Your task to perform on an android device: install app "Airtel Thanks" Image 0: 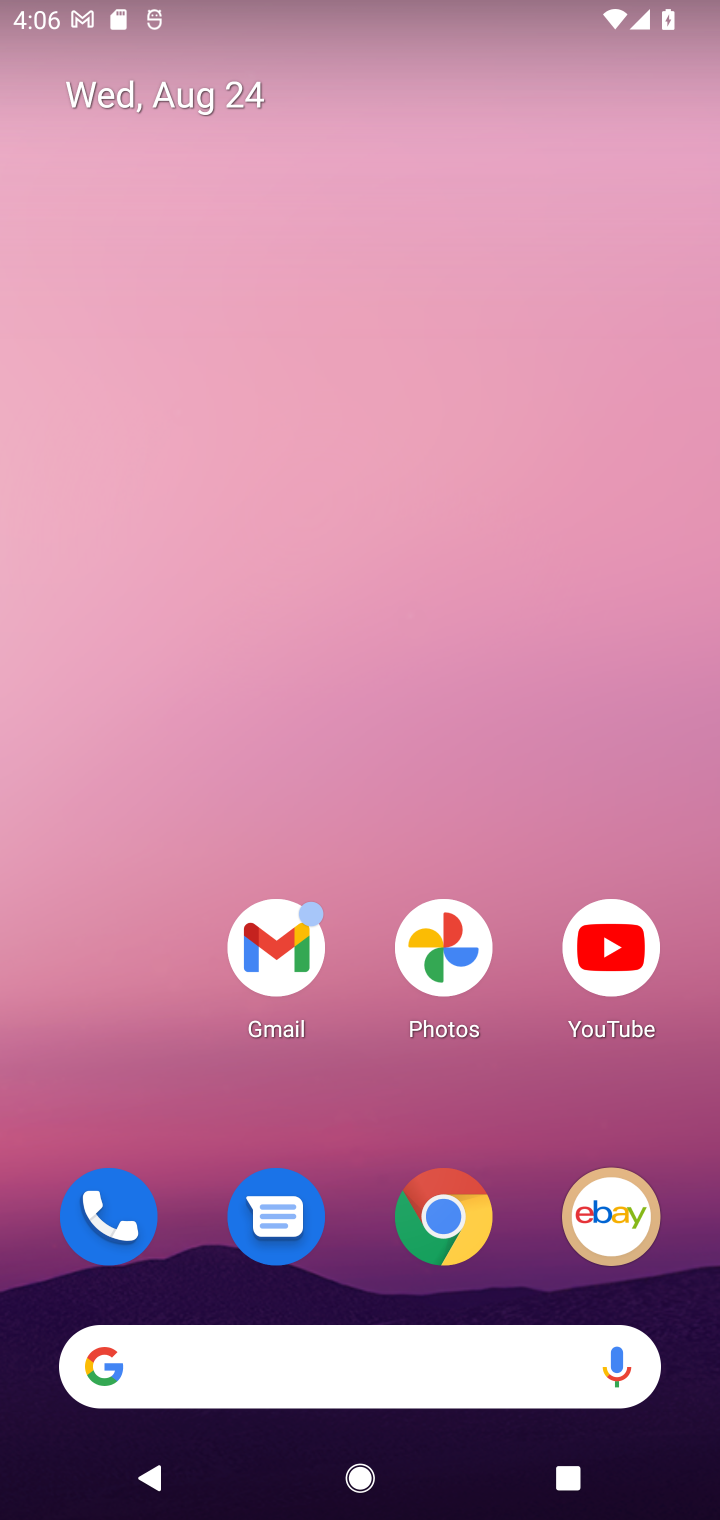
Step 0: drag from (359, 1100) to (411, 312)
Your task to perform on an android device: install app "Airtel Thanks" Image 1: 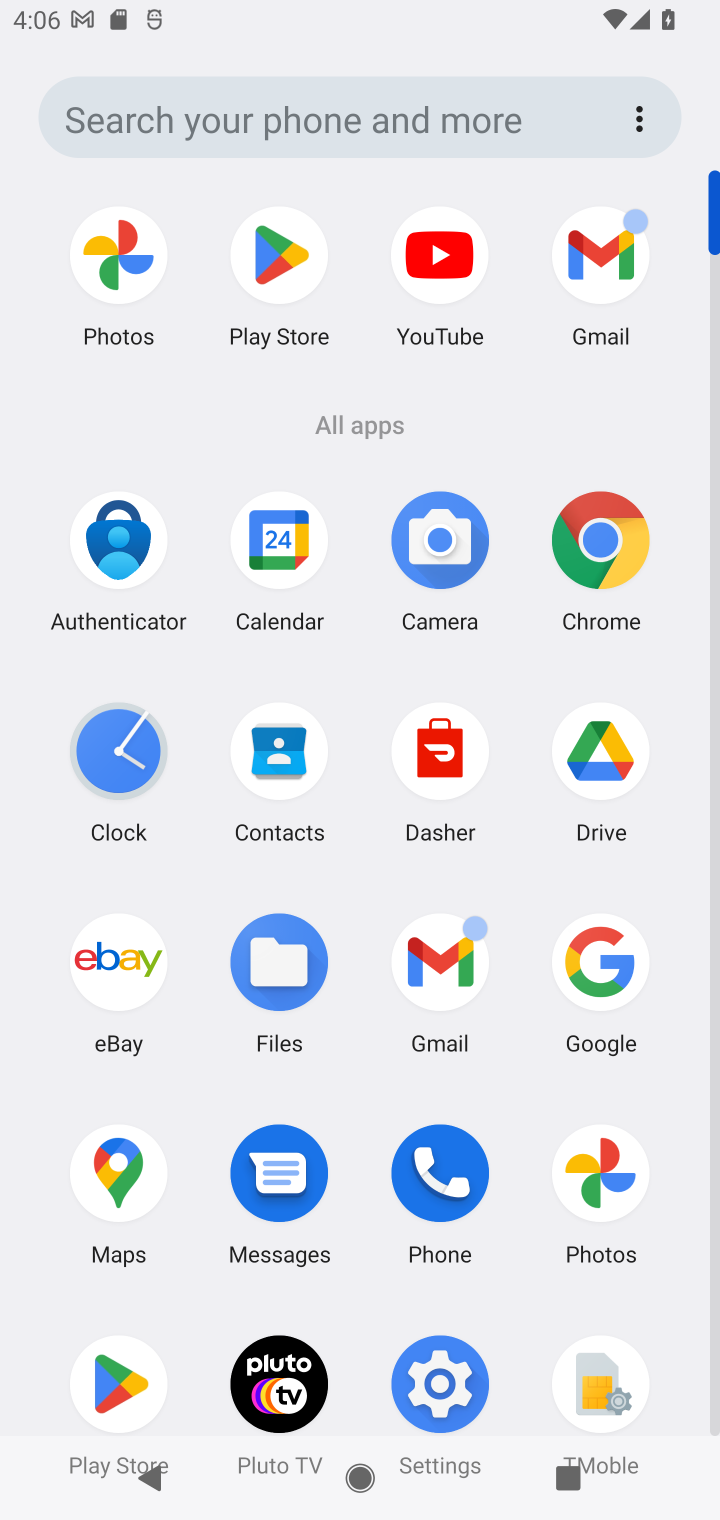
Step 1: click (299, 271)
Your task to perform on an android device: install app "Airtel Thanks" Image 2: 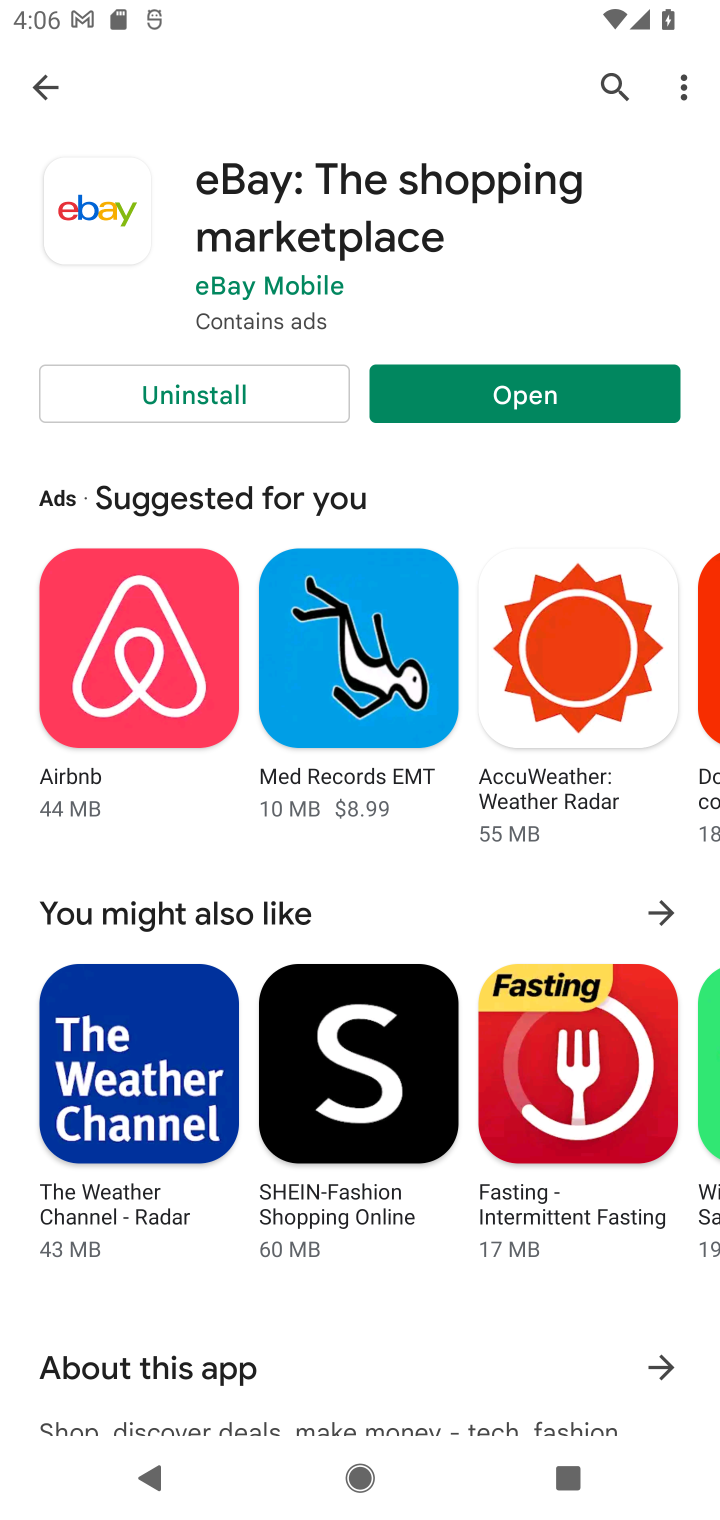
Step 2: click (608, 92)
Your task to perform on an android device: install app "Airtel Thanks" Image 3: 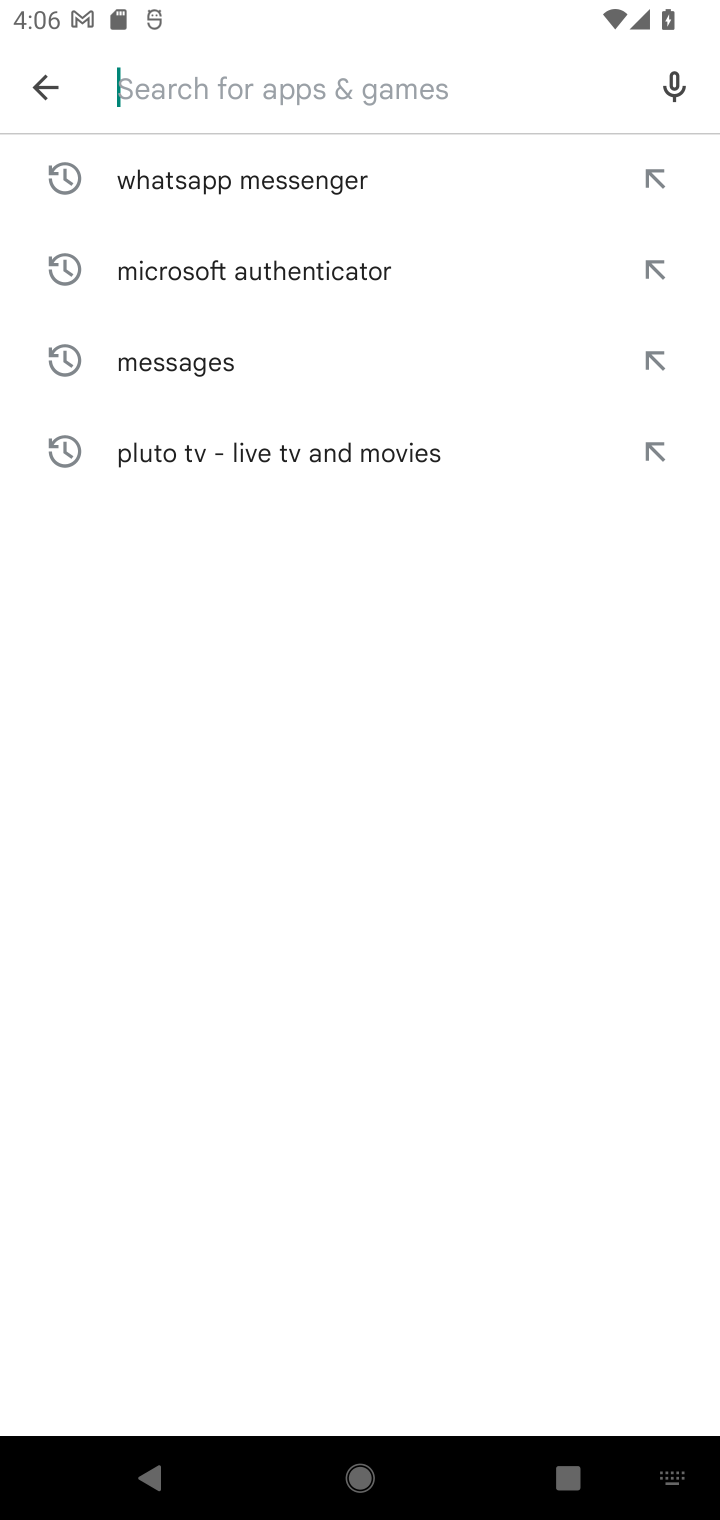
Step 3: type "Airtel Thanks"
Your task to perform on an android device: install app "Airtel Thanks" Image 4: 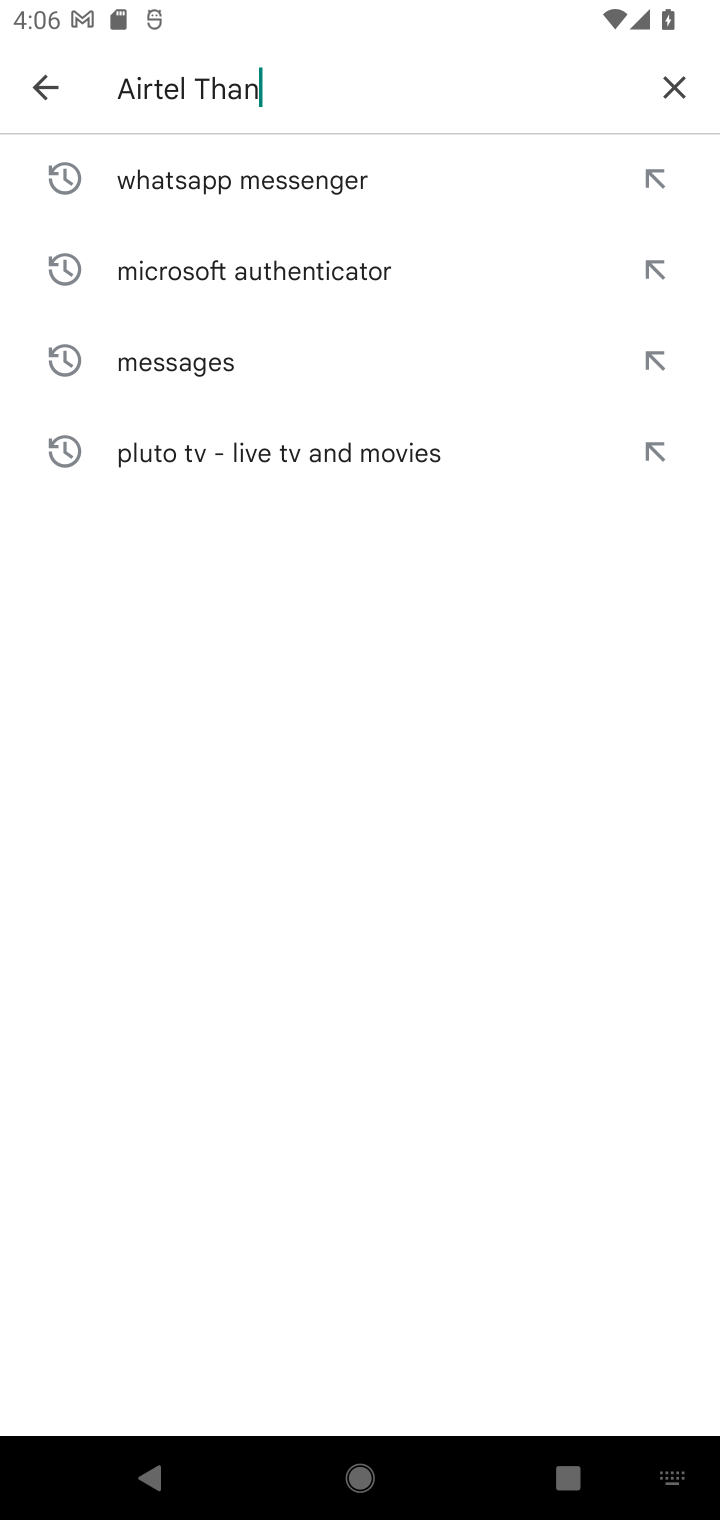
Step 4: type ""
Your task to perform on an android device: install app "Airtel Thanks" Image 5: 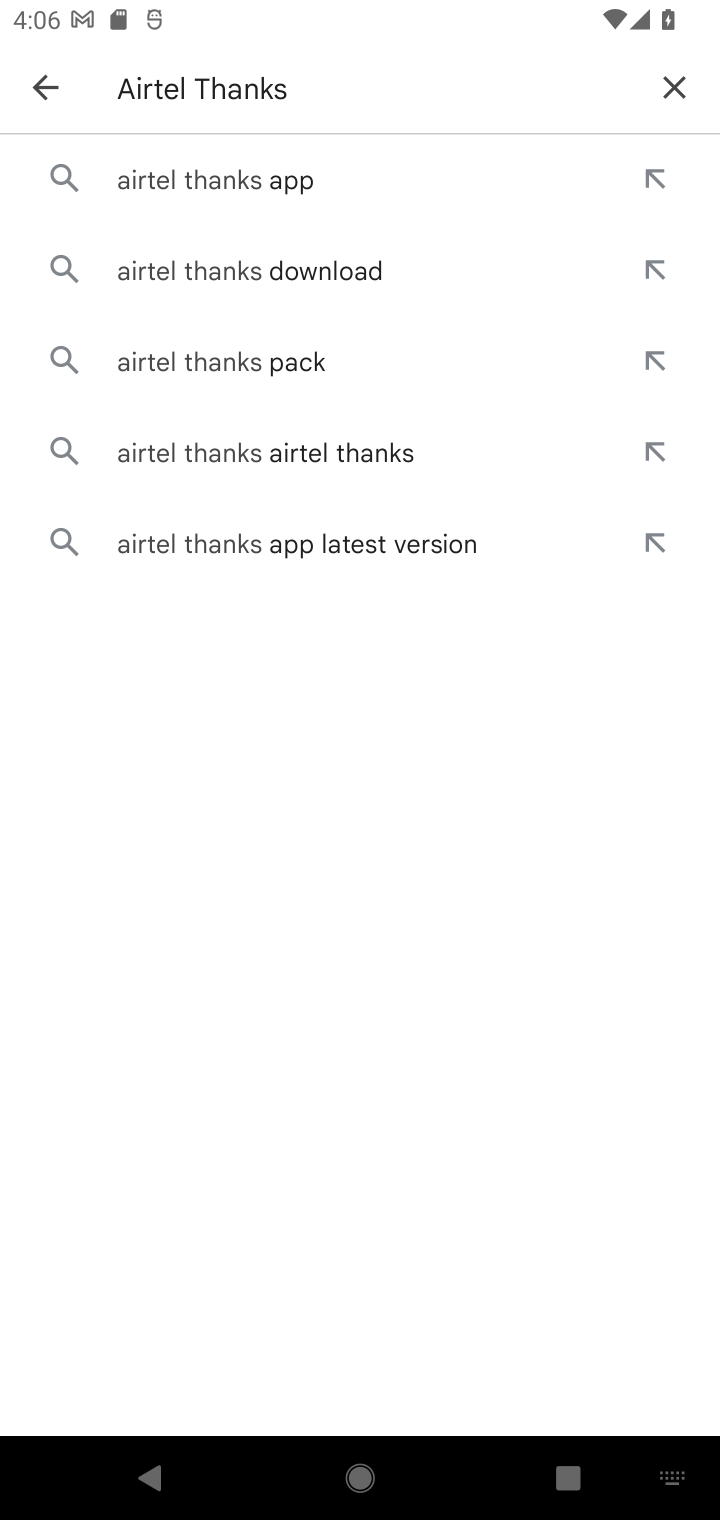
Step 5: click (378, 165)
Your task to perform on an android device: install app "Airtel Thanks" Image 6: 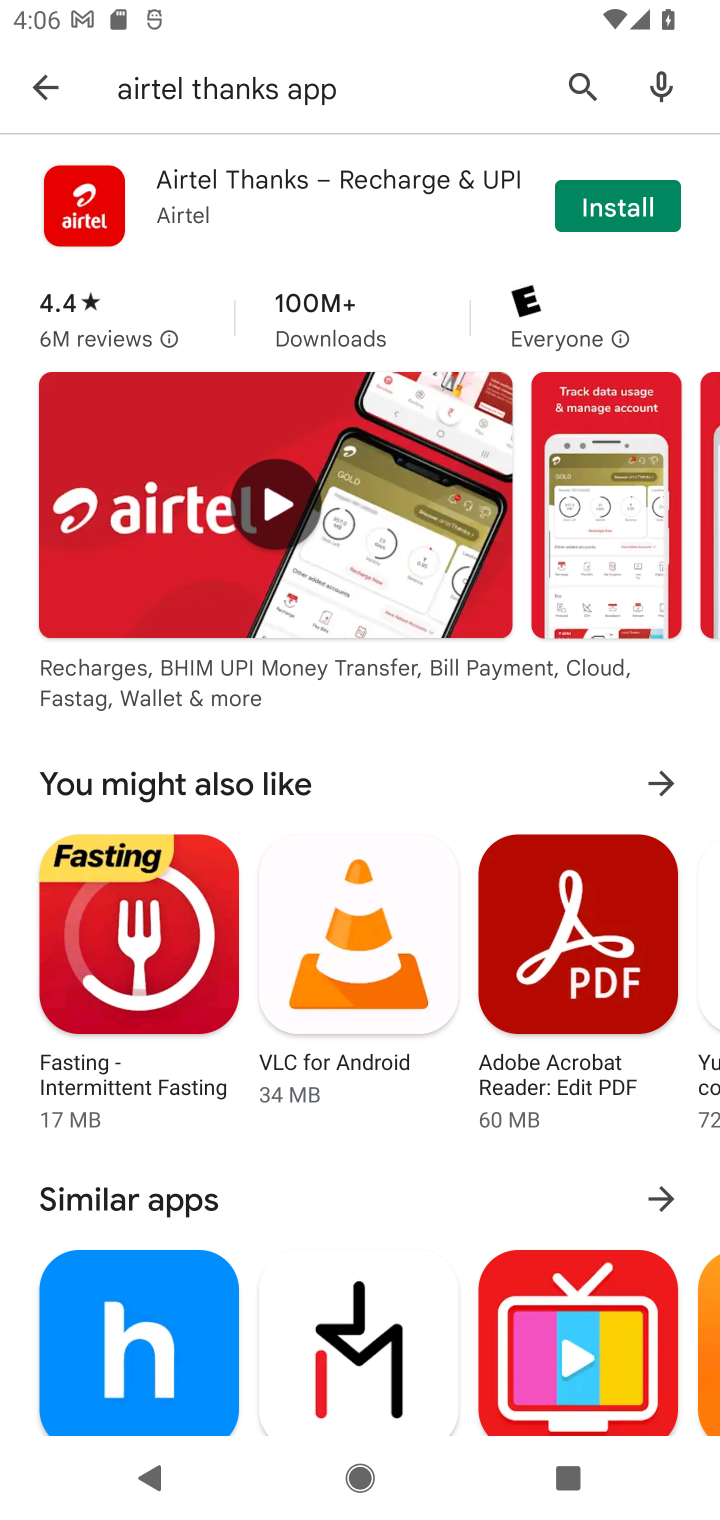
Step 6: click (592, 212)
Your task to perform on an android device: install app "Airtel Thanks" Image 7: 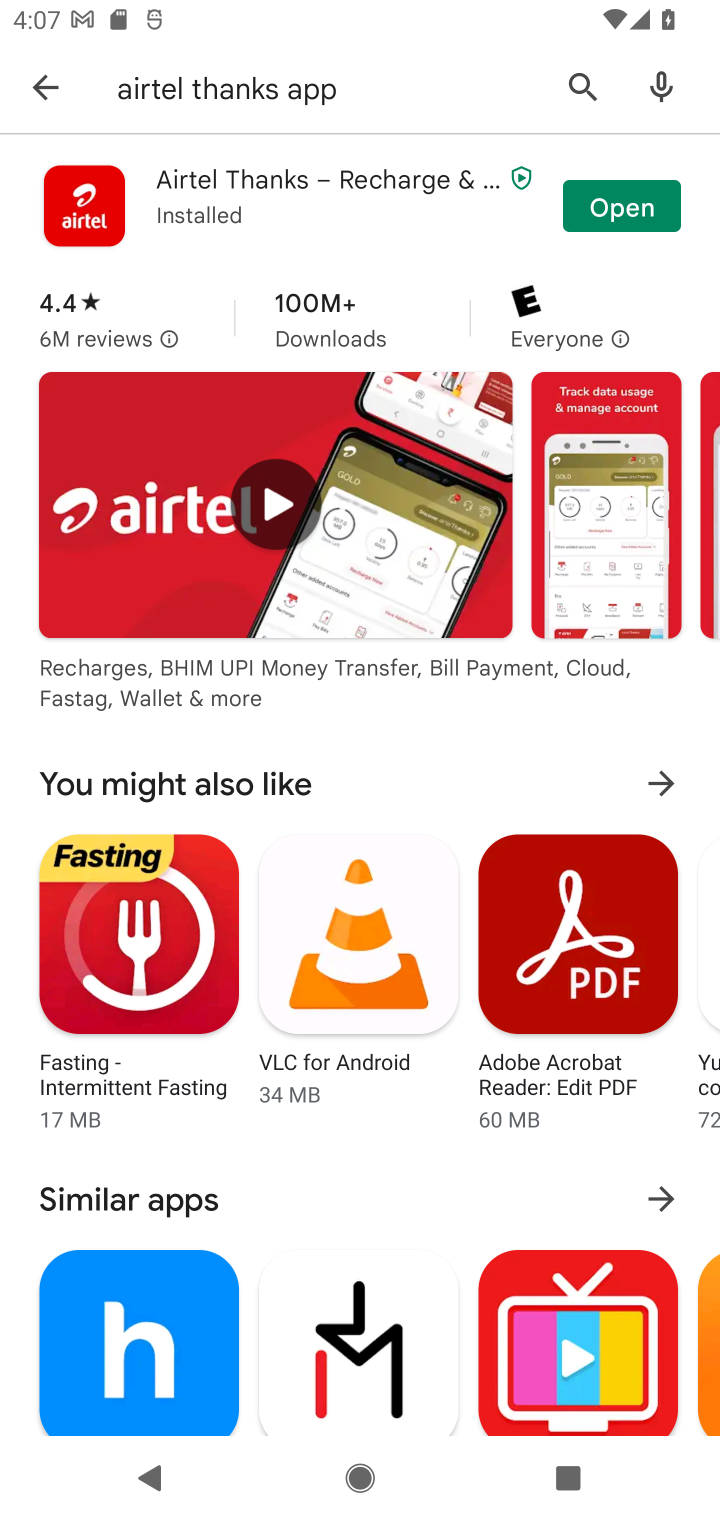
Step 7: task complete